Your task to perform on an android device: turn off smart reply in the gmail app Image 0: 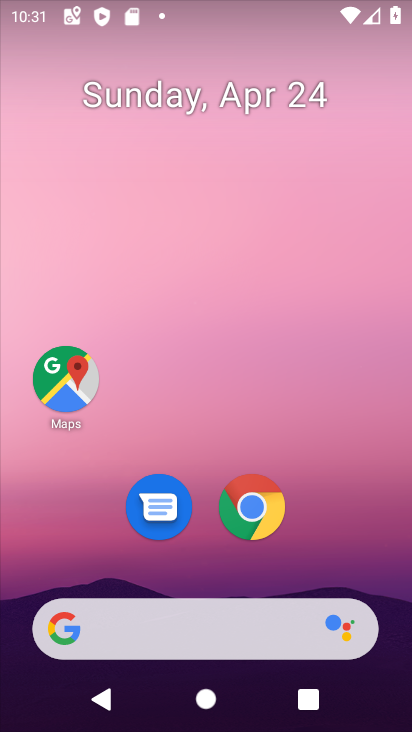
Step 0: drag from (361, 547) to (322, 164)
Your task to perform on an android device: turn off smart reply in the gmail app Image 1: 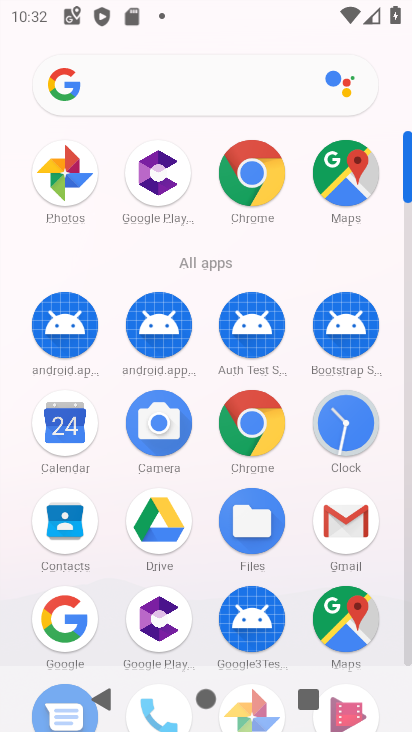
Step 1: click (341, 554)
Your task to perform on an android device: turn off smart reply in the gmail app Image 2: 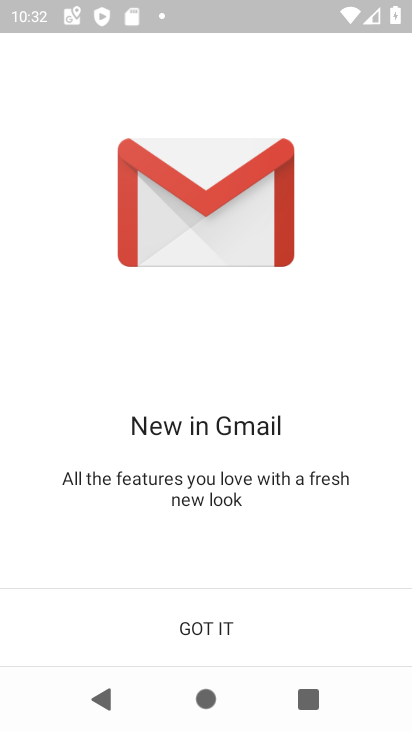
Step 2: click (220, 615)
Your task to perform on an android device: turn off smart reply in the gmail app Image 3: 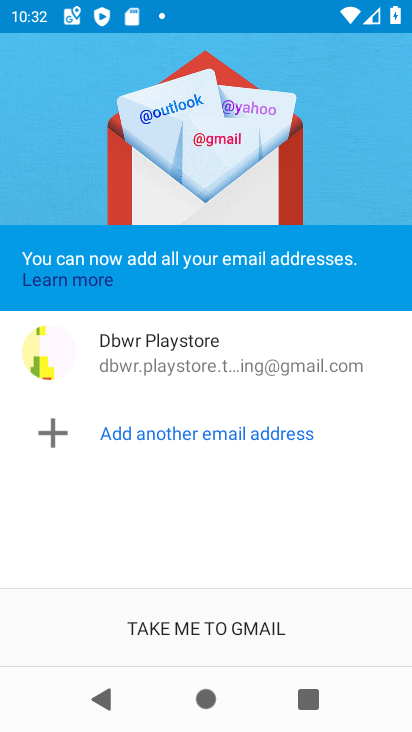
Step 3: click (217, 624)
Your task to perform on an android device: turn off smart reply in the gmail app Image 4: 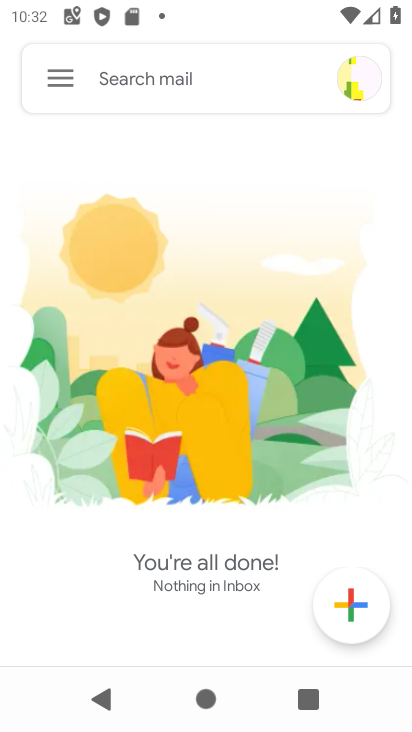
Step 4: click (64, 82)
Your task to perform on an android device: turn off smart reply in the gmail app Image 5: 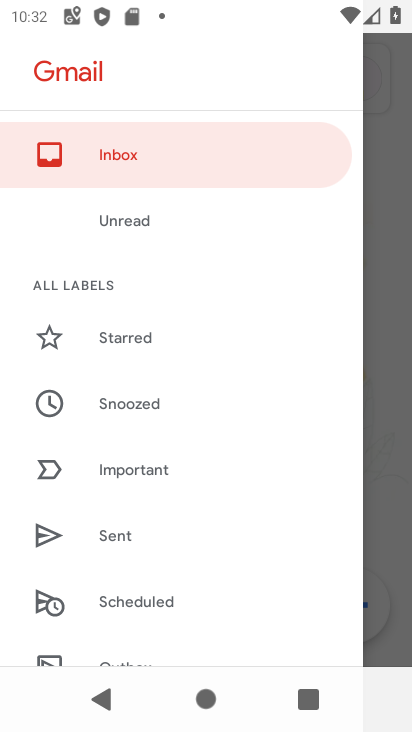
Step 5: drag from (210, 597) to (207, 313)
Your task to perform on an android device: turn off smart reply in the gmail app Image 6: 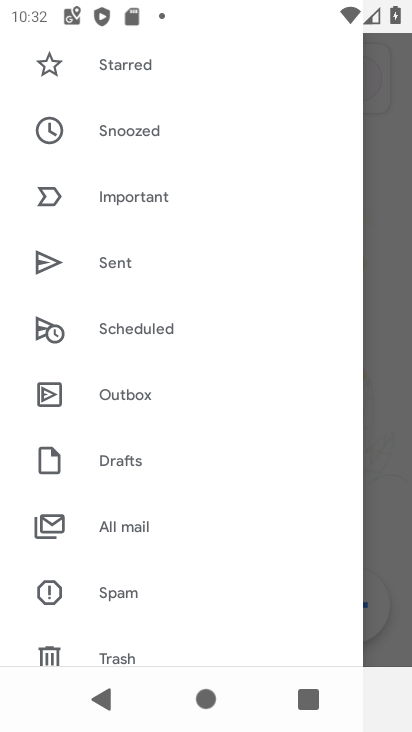
Step 6: drag from (178, 596) to (167, 235)
Your task to perform on an android device: turn off smart reply in the gmail app Image 7: 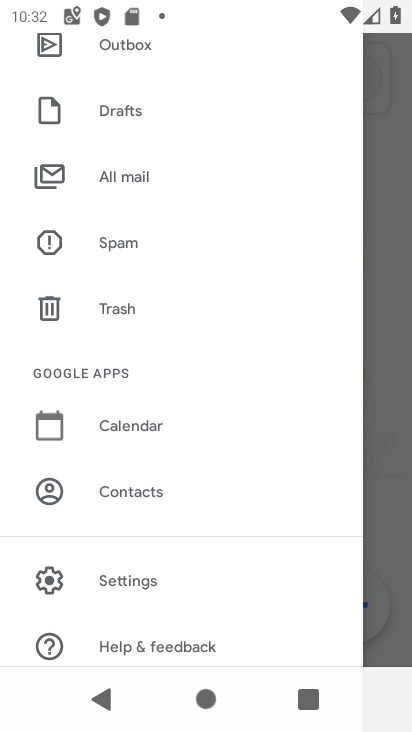
Step 7: click (155, 572)
Your task to perform on an android device: turn off smart reply in the gmail app Image 8: 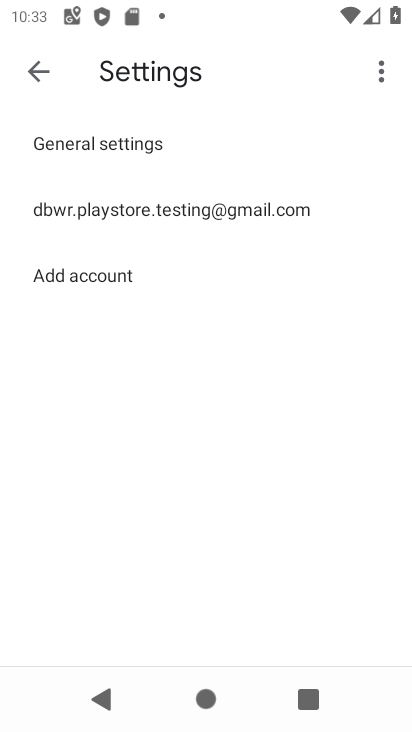
Step 8: click (109, 205)
Your task to perform on an android device: turn off smart reply in the gmail app Image 9: 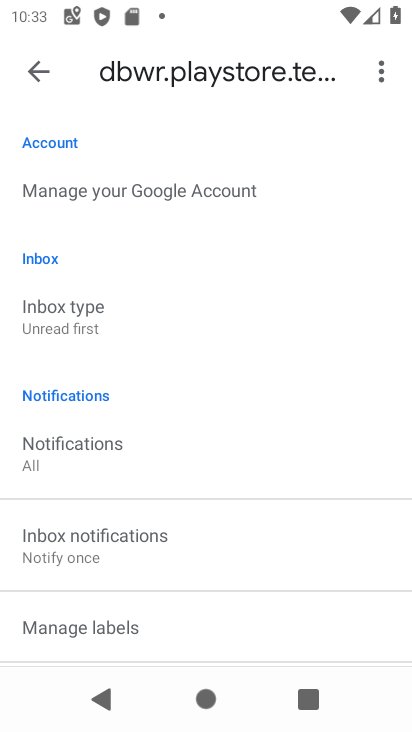
Step 9: drag from (159, 558) to (145, 142)
Your task to perform on an android device: turn off smart reply in the gmail app Image 10: 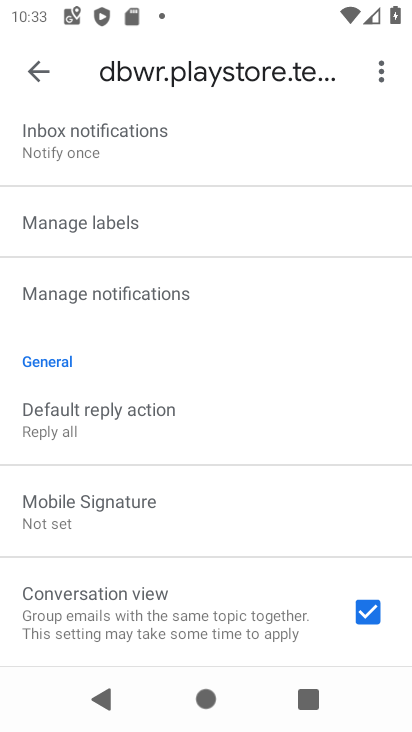
Step 10: drag from (217, 543) to (194, 231)
Your task to perform on an android device: turn off smart reply in the gmail app Image 11: 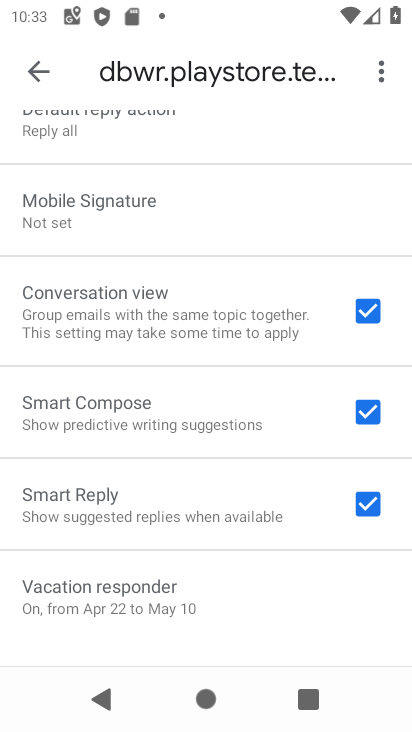
Step 11: click (369, 502)
Your task to perform on an android device: turn off smart reply in the gmail app Image 12: 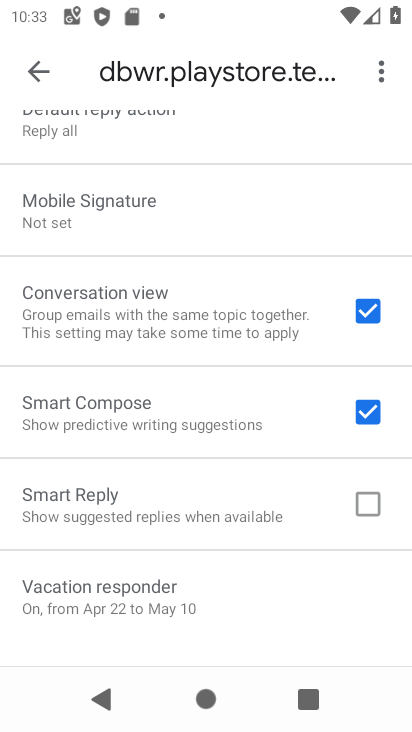
Step 12: task complete